Your task to perform on an android device: Open Google Chrome and open the bookmarks view Image 0: 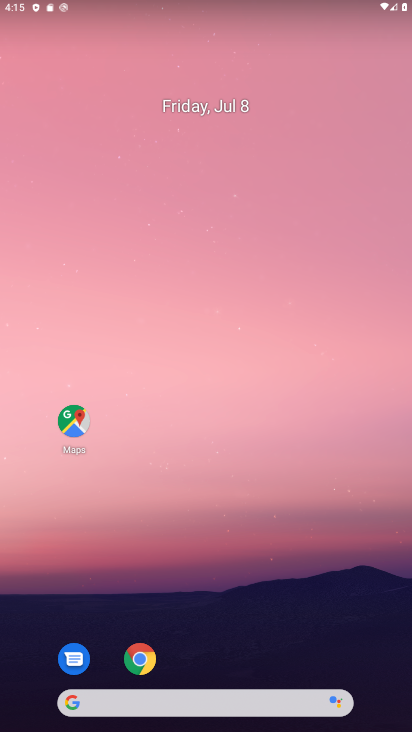
Step 0: press home button
Your task to perform on an android device: Open Google Chrome and open the bookmarks view Image 1: 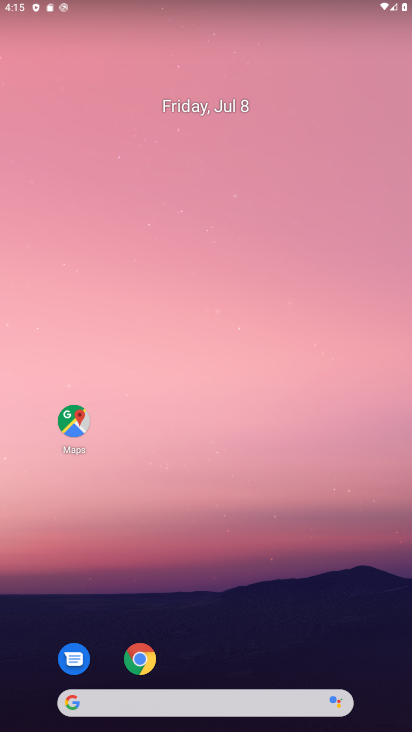
Step 1: click (142, 649)
Your task to perform on an android device: Open Google Chrome and open the bookmarks view Image 2: 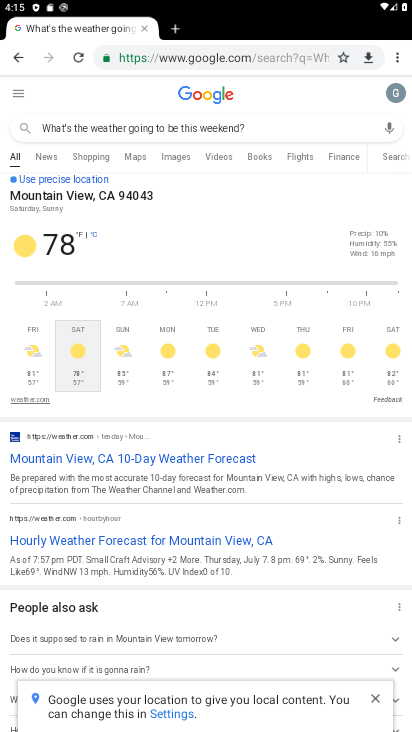
Step 2: task complete